Your task to perform on an android device: change the upload size in google photos Image 0: 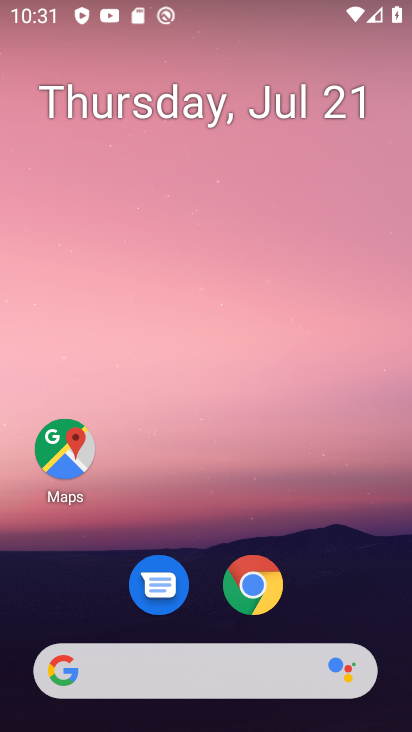
Step 0: drag from (230, 664) to (399, 184)
Your task to perform on an android device: change the upload size in google photos Image 1: 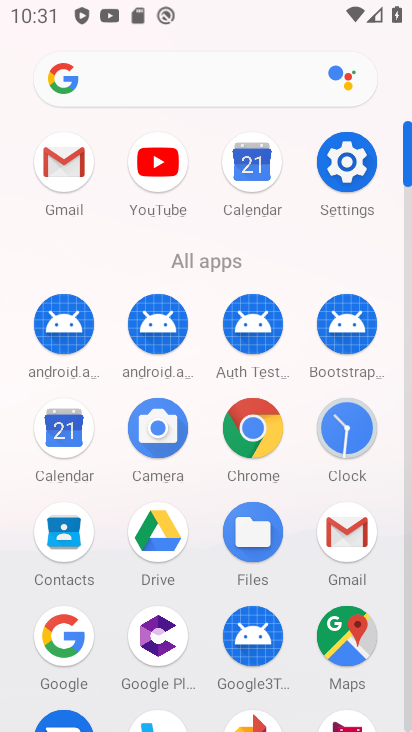
Step 1: drag from (176, 614) to (329, 212)
Your task to perform on an android device: change the upload size in google photos Image 2: 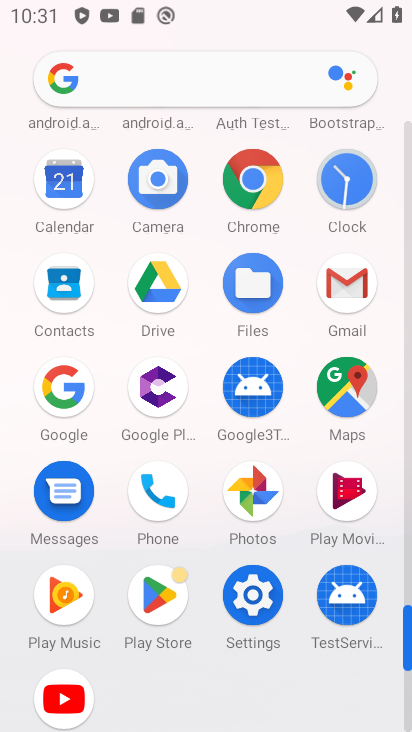
Step 2: click (266, 502)
Your task to perform on an android device: change the upload size in google photos Image 3: 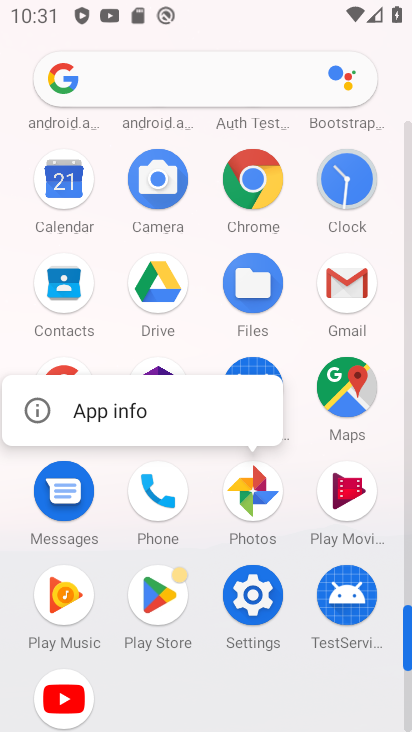
Step 3: click (255, 492)
Your task to perform on an android device: change the upload size in google photos Image 4: 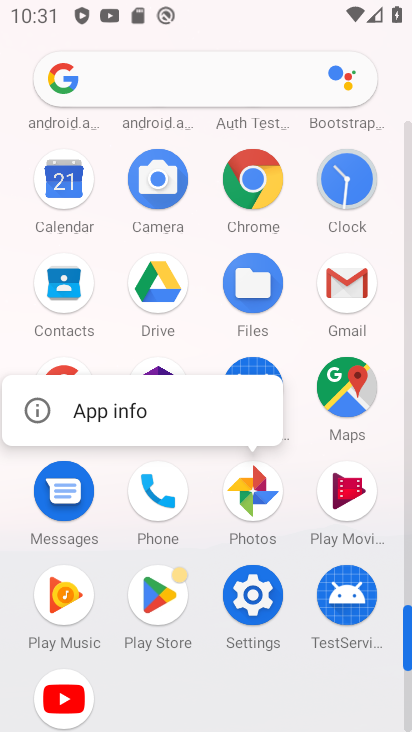
Step 4: click (248, 495)
Your task to perform on an android device: change the upload size in google photos Image 5: 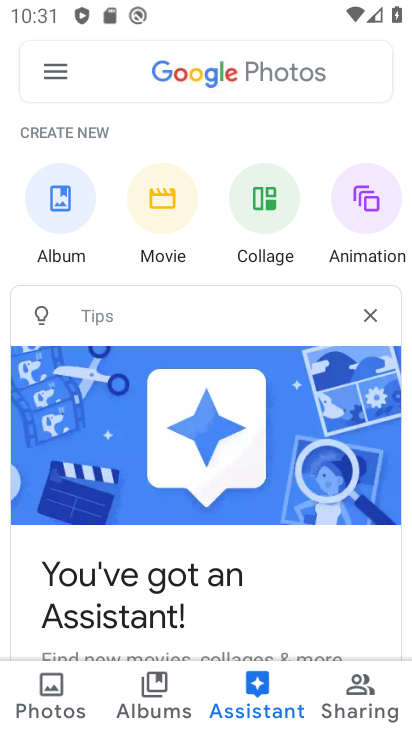
Step 5: click (53, 64)
Your task to perform on an android device: change the upload size in google photos Image 6: 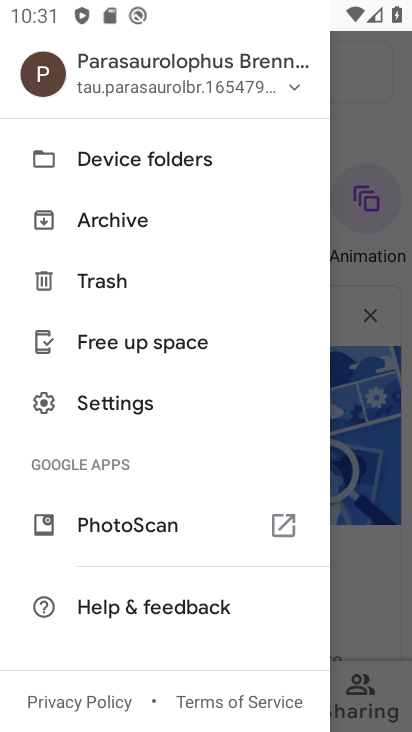
Step 6: click (137, 401)
Your task to perform on an android device: change the upload size in google photos Image 7: 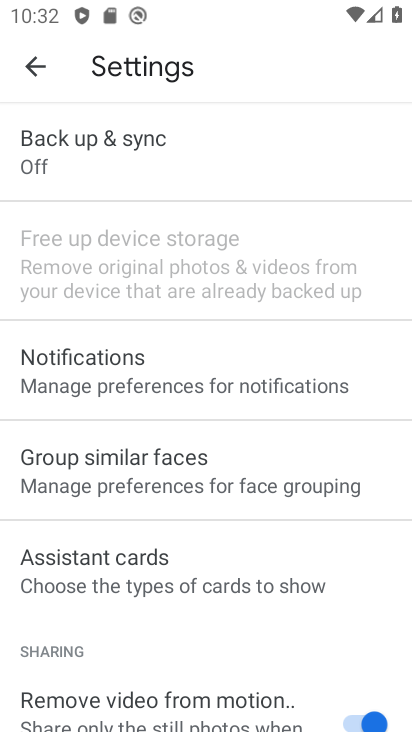
Step 7: click (155, 180)
Your task to perform on an android device: change the upload size in google photos Image 8: 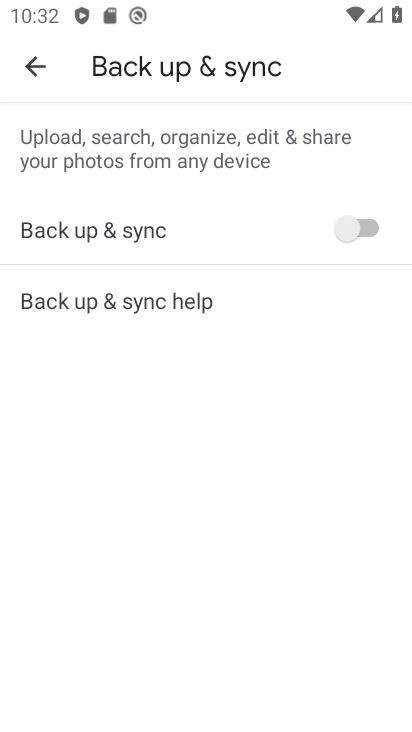
Step 8: click (373, 227)
Your task to perform on an android device: change the upload size in google photos Image 9: 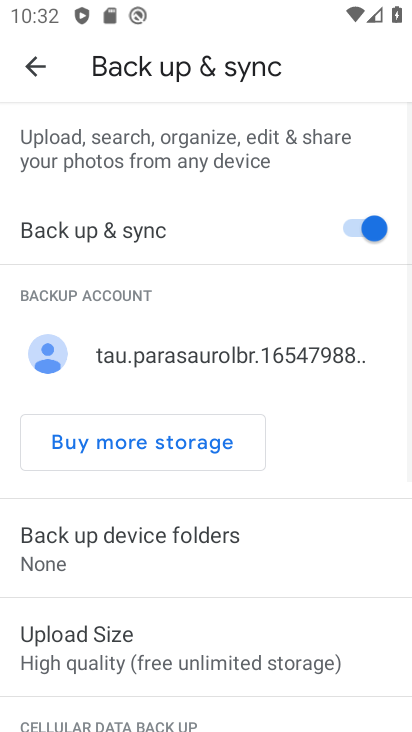
Step 9: drag from (128, 568) to (287, 285)
Your task to perform on an android device: change the upload size in google photos Image 10: 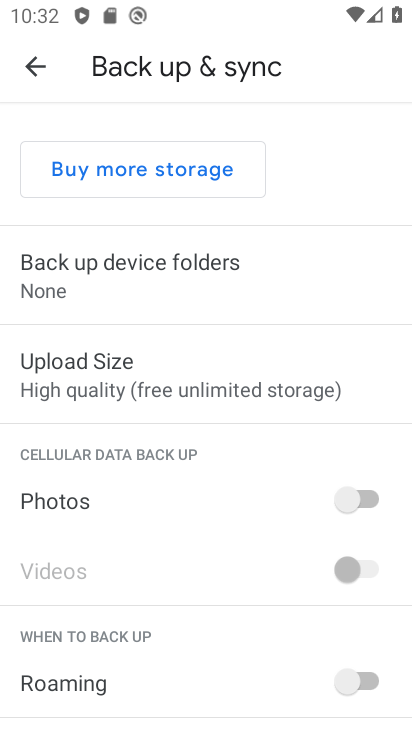
Step 10: click (108, 384)
Your task to perform on an android device: change the upload size in google photos Image 11: 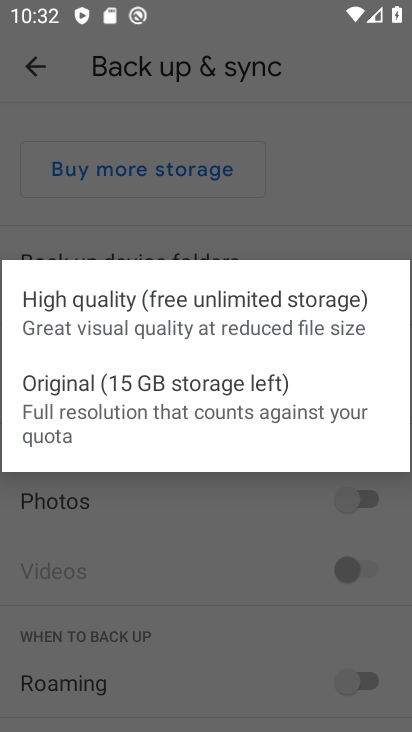
Step 11: click (71, 370)
Your task to perform on an android device: change the upload size in google photos Image 12: 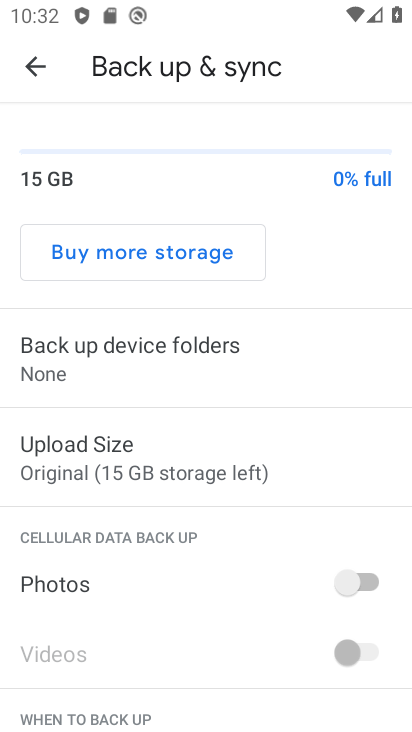
Step 12: click (70, 389)
Your task to perform on an android device: change the upload size in google photos Image 13: 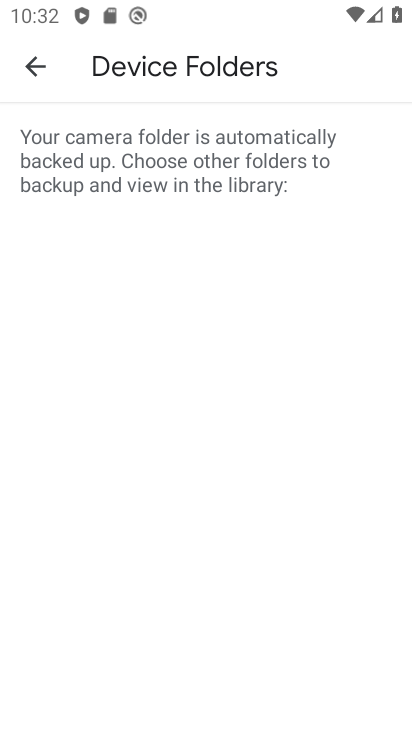
Step 13: click (39, 57)
Your task to perform on an android device: change the upload size in google photos Image 14: 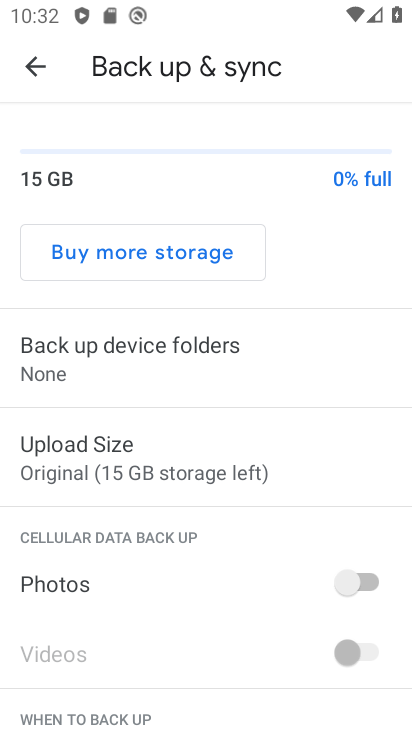
Step 14: task complete